Your task to perform on an android device: set an alarm Image 0: 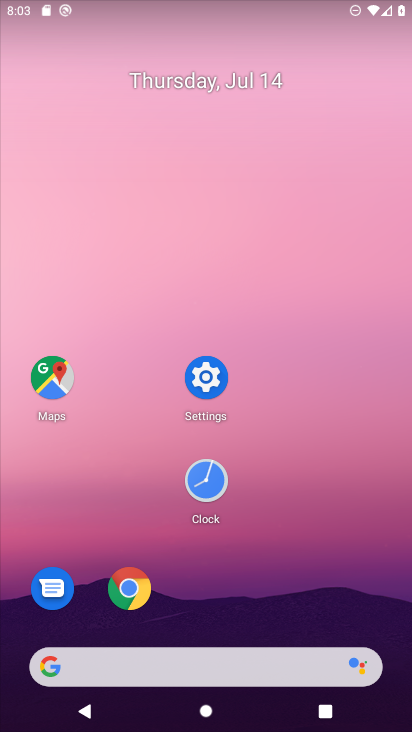
Step 0: click (201, 480)
Your task to perform on an android device: set an alarm Image 1: 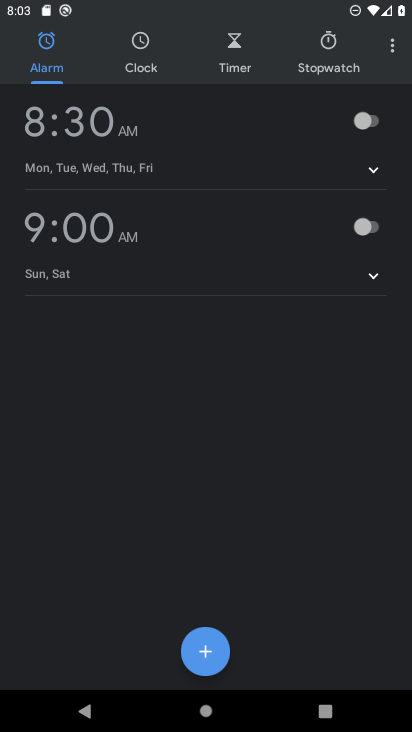
Step 1: click (376, 113)
Your task to perform on an android device: set an alarm Image 2: 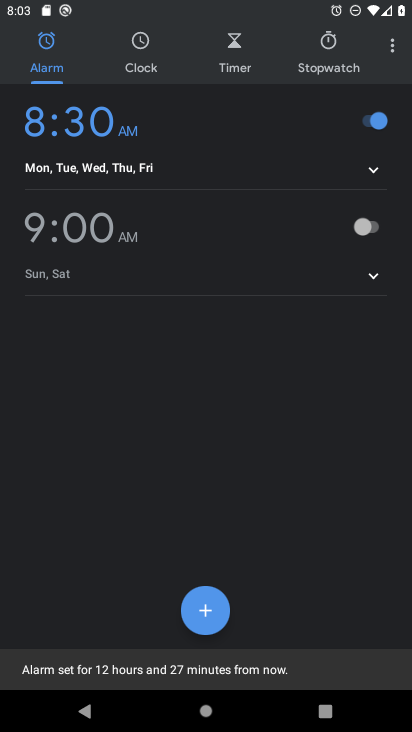
Step 2: task complete